Your task to perform on an android device: Open wifi settings Image 0: 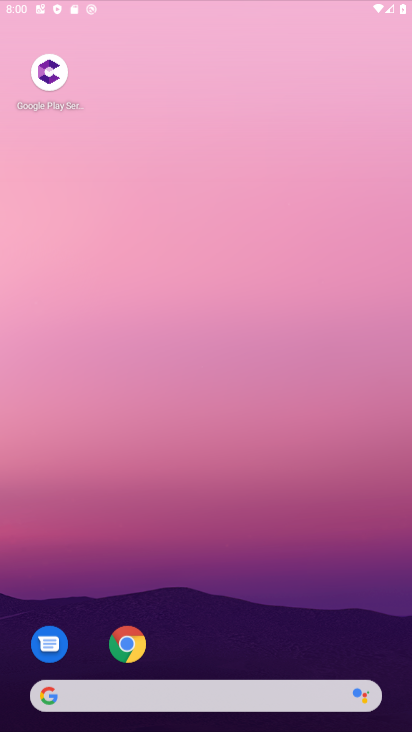
Step 0: drag from (177, 660) to (203, 150)
Your task to perform on an android device: Open wifi settings Image 1: 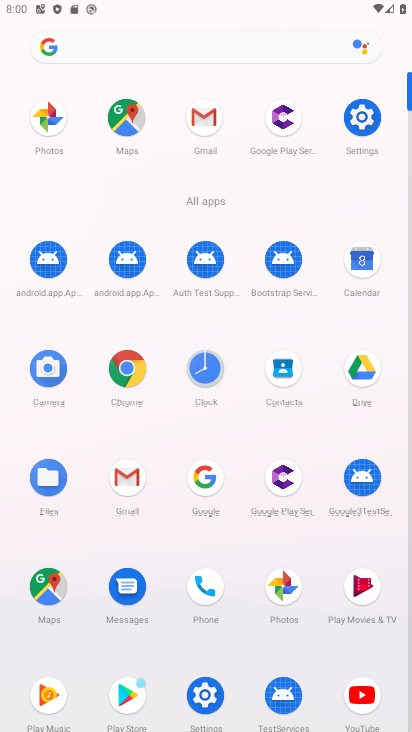
Step 1: click (366, 106)
Your task to perform on an android device: Open wifi settings Image 2: 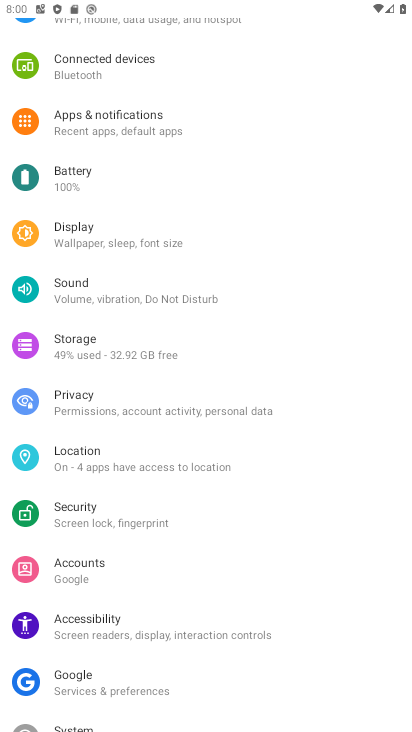
Step 2: drag from (167, 686) to (246, 241)
Your task to perform on an android device: Open wifi settings Image 3: 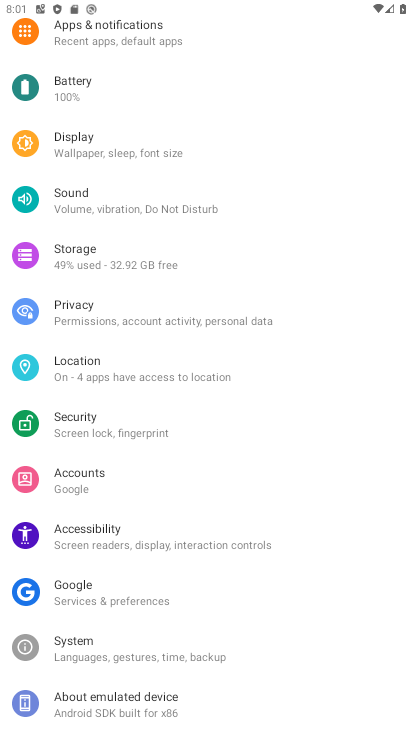
Step 3: drag from (188, 140) to (286, 626)
Your task to perform on an android device: Open wifi settings Image 4: 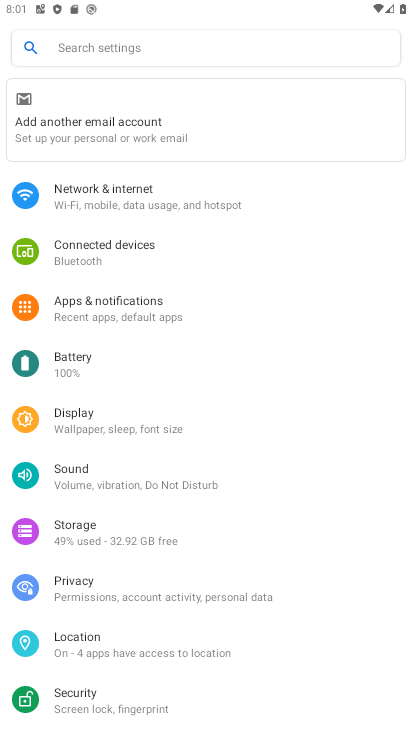
Step 4: click (161, 193)
Your task to perform on an android device: Open wifi settings Image 5: 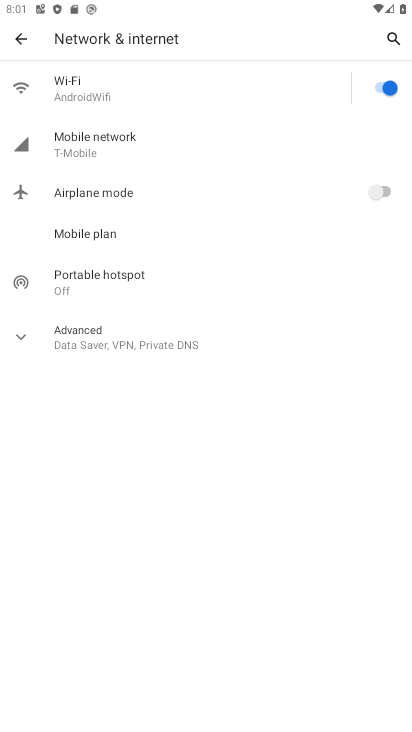
Step 5: click (189, 80)
Your task to perform on an android device: Open wifi settings Image 6: 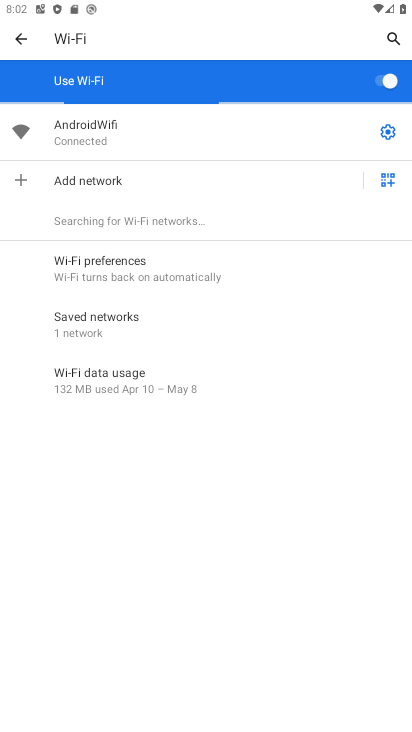
Step 6: drag from (189, 673) to (227, 441)
Your task to perform on an android device: Open wifi settings Image 7: 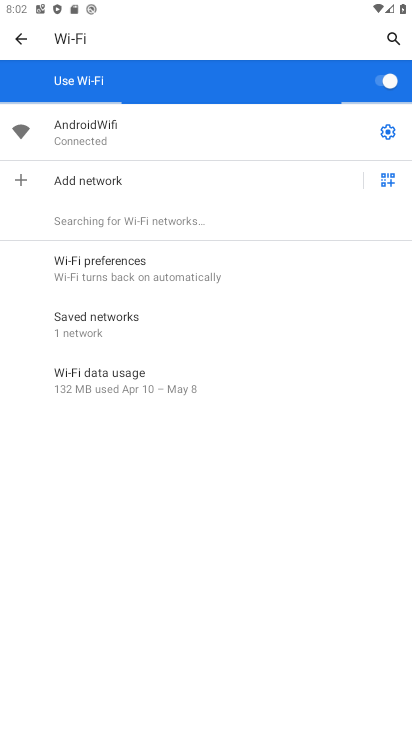
Step 7: drag from (233, 689) to (289, 262)
Your task to perform on an android device: Open wifi settings Image 8: 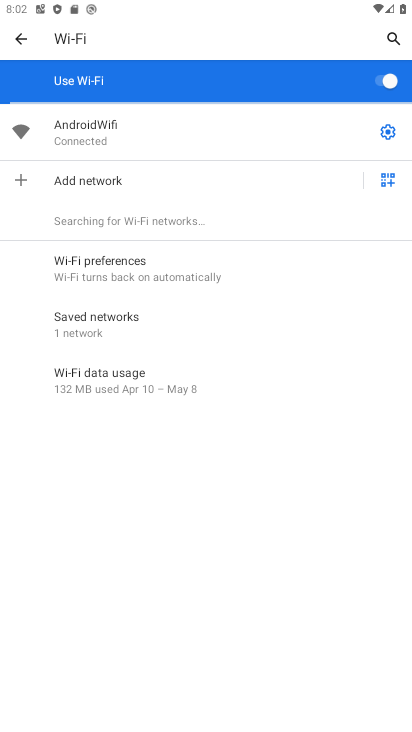
Step 8: click (388, 132)
Your task to perform on an android device: Open wifi settings Image 9: 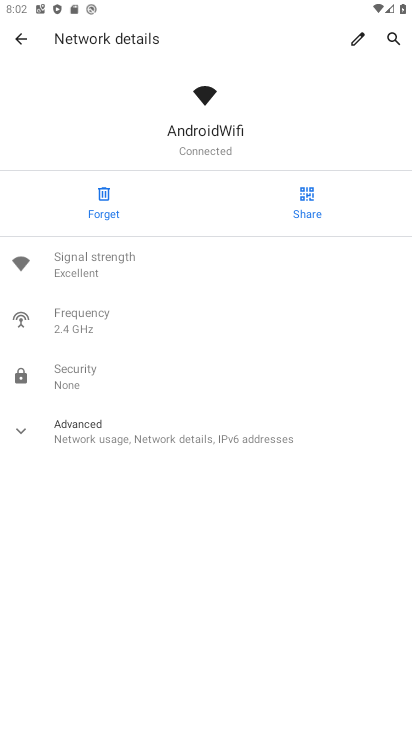
Step 9: task complete